Your task to perform on an android device: change timer sound Image 0: 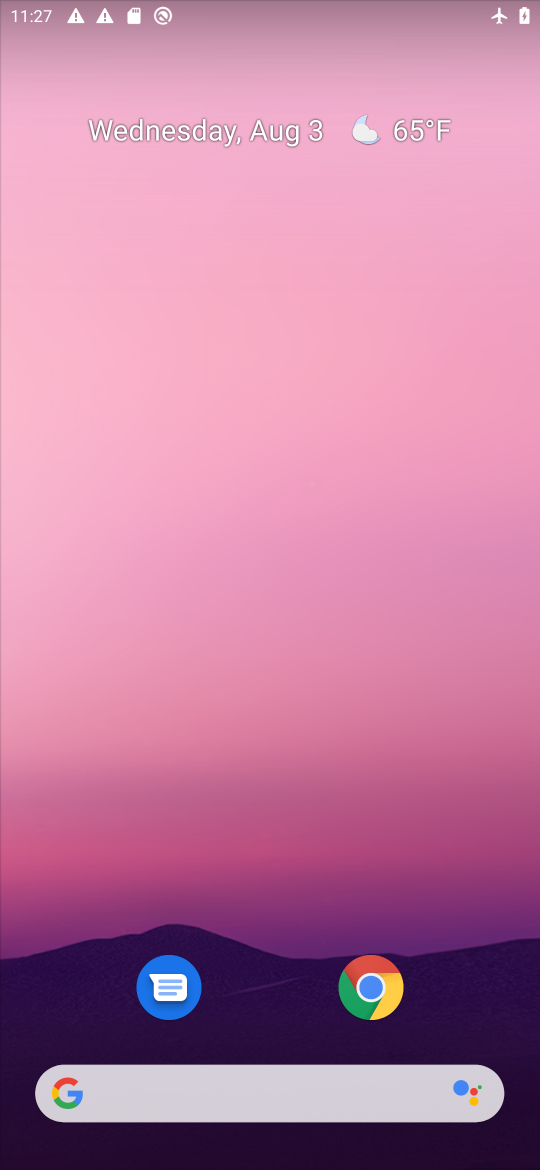
Step 0: drag from (274, 1061) to (236, 514)
Your task to perform on an android device: change timer sound Image 1: 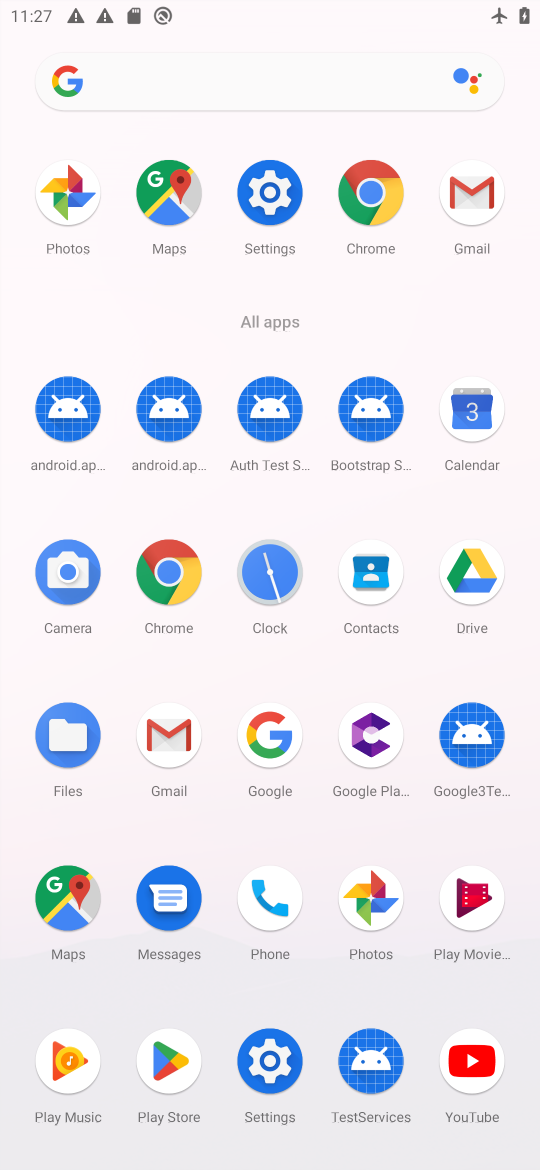
Step 1: click (269, 579)
Your task to perform on an android device: change timer sound Image 2: 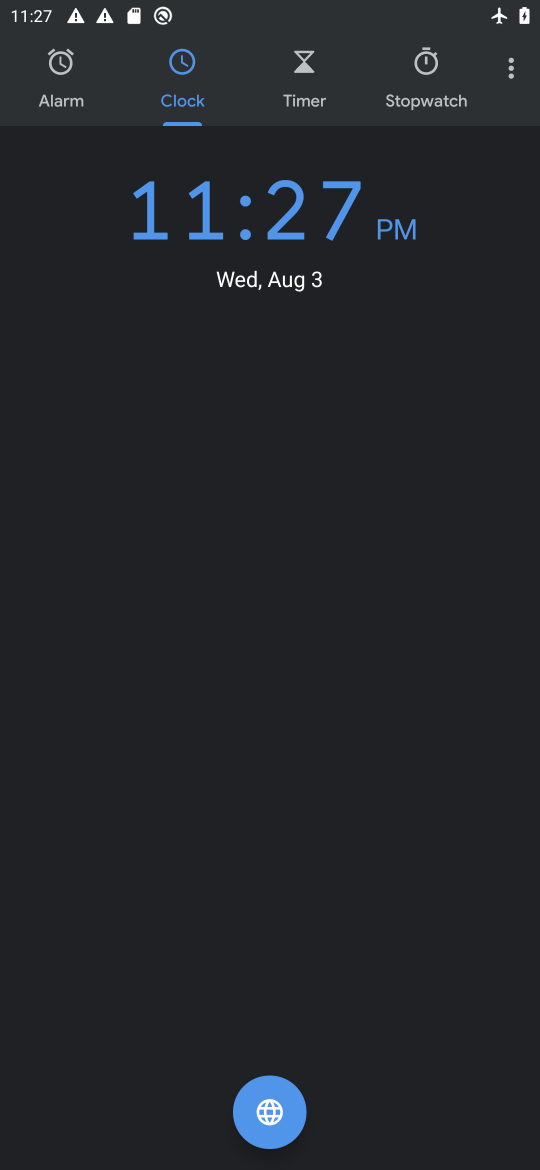
Step 2: click (515, 78)
Your task to perform on an android device: change timer sound Image 3: 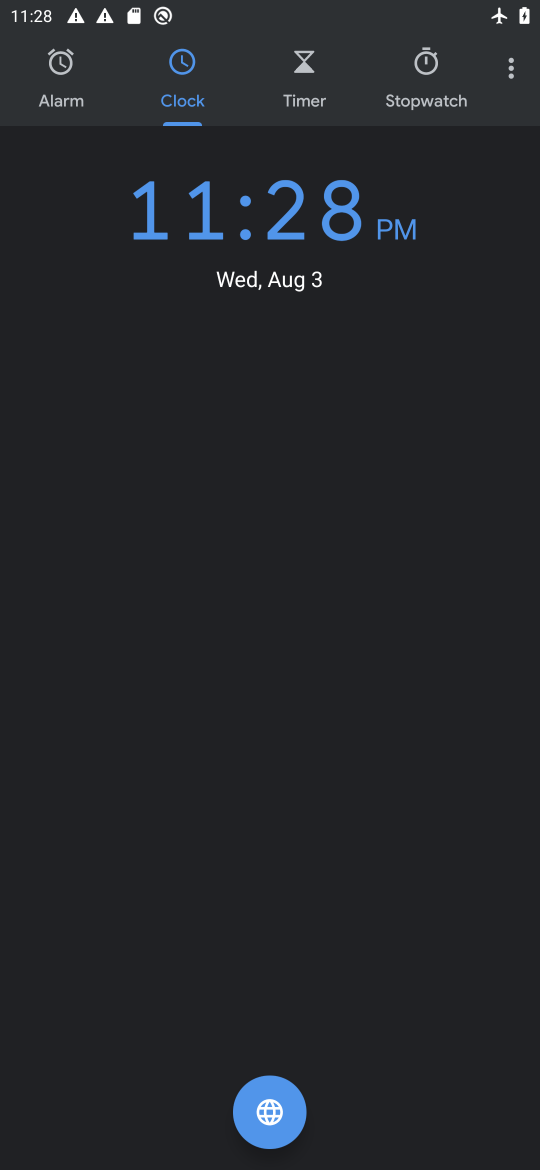
Step 3: click (509, 72)
Your task to perform on an android device: change timer sound Image 4: 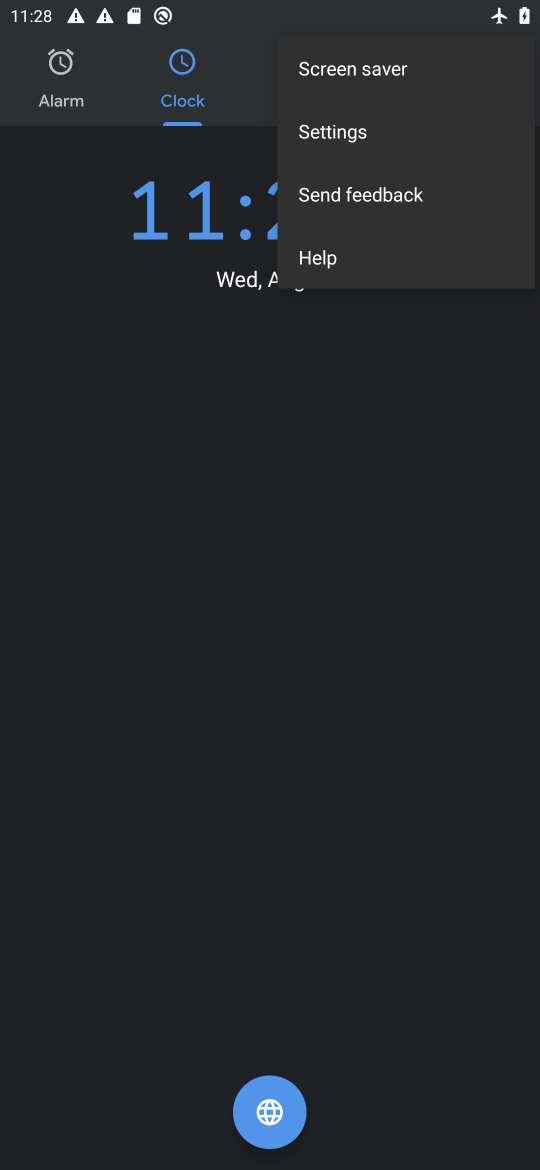
Step 4: click (329, 134)
Your task to perform on an android device: change timer sound Image 5: 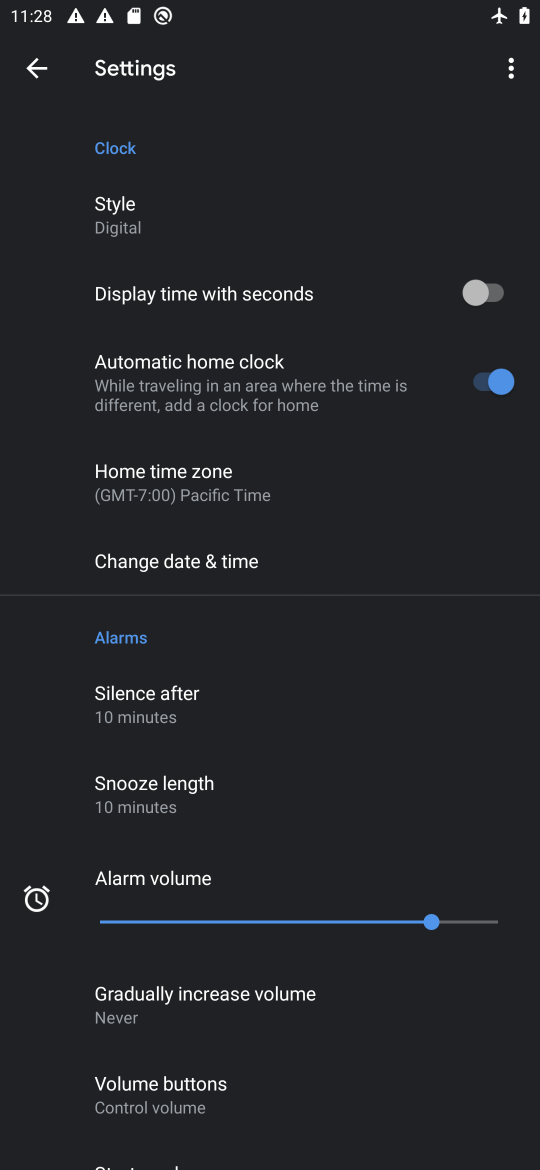
Step 5: drag from (182, 1062) to (157, 447)
Your task to perform on an android device: change timer sound Image 6: 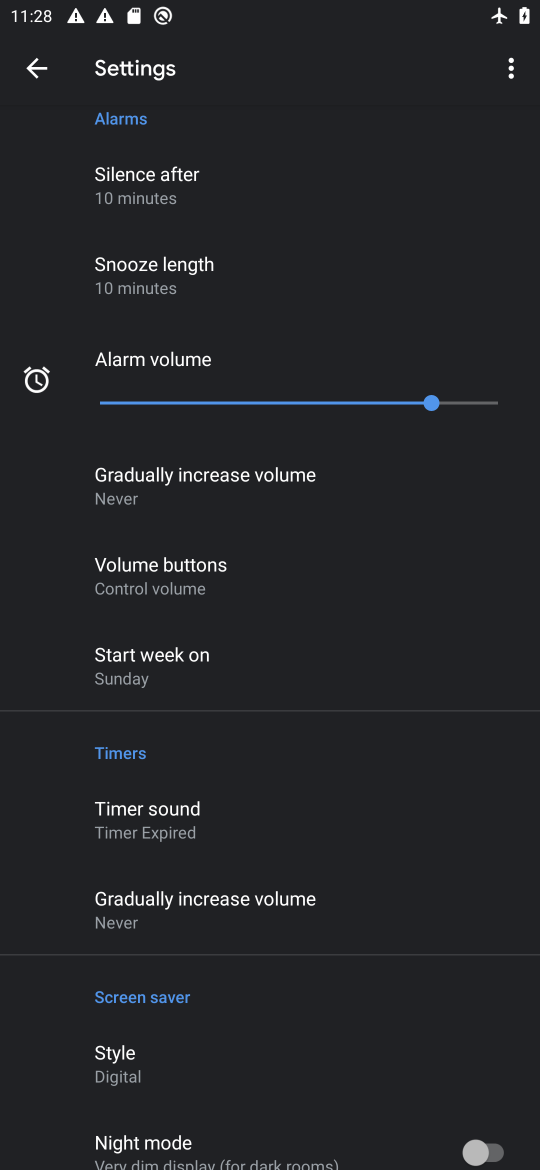
Step 6: drag from (157, 1008) to (166, 576)
Your task to perform on an android device: change timer sound Image 7: 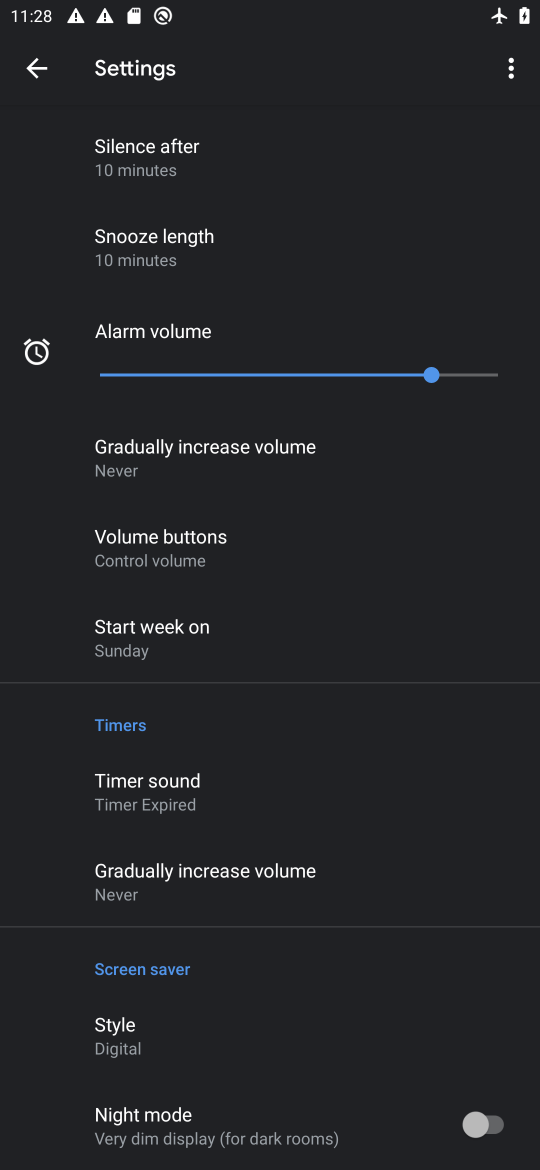
Step 7: click (177, 787)
Your task to perform on an android device: change timer sound Image 8: 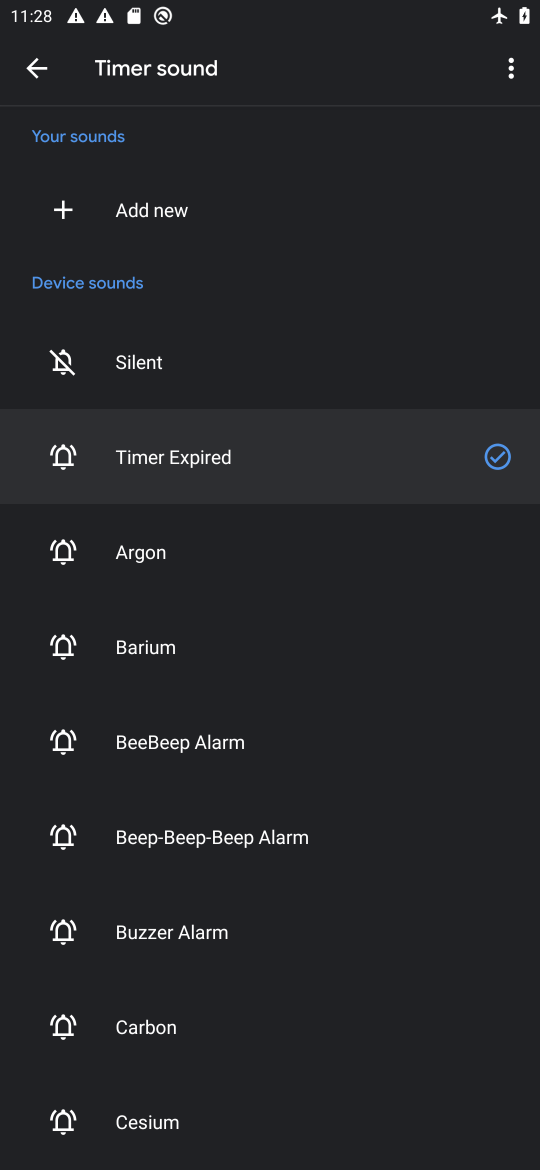
Step 8: click (120, 570)
Your task to perform on an android device: change timer sound Image 9: 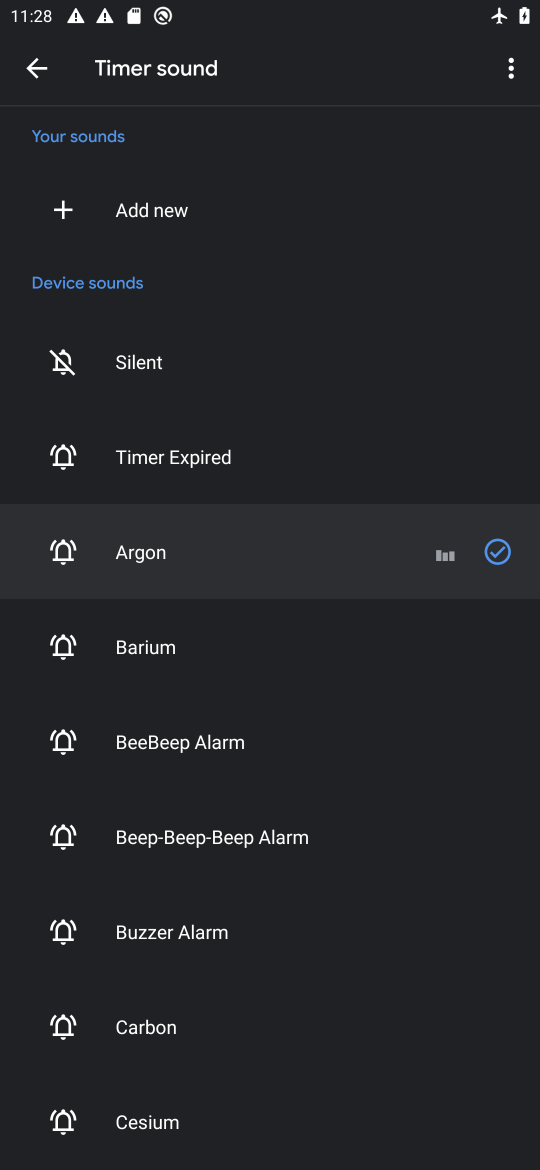
Step 9: task complete